Your task to perform on an android device: turn notification dots on Image 0: 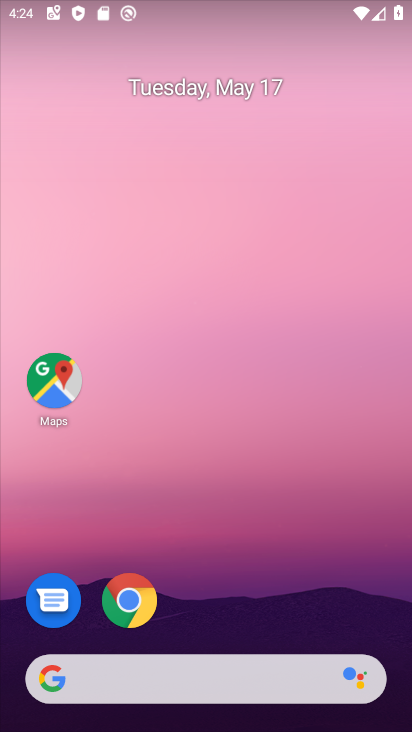
Step 0: drag from (252, 596) to (359, 1)
Your task to perform on an android device: turn notification dots on Image 1: 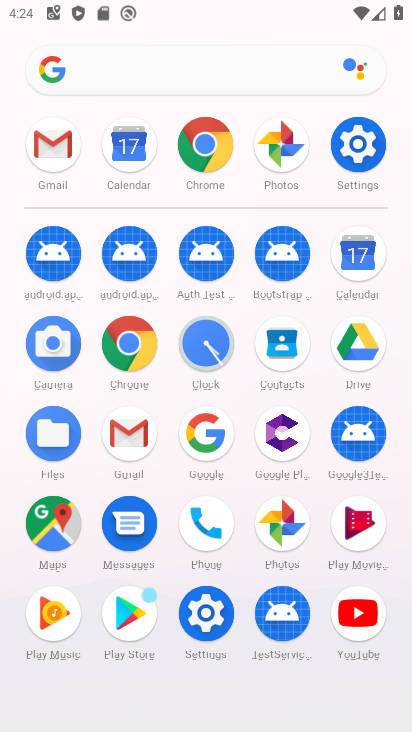
Step 1: click (210, 630)
Your task to perform on an android device: turn notification dots on Image 2: 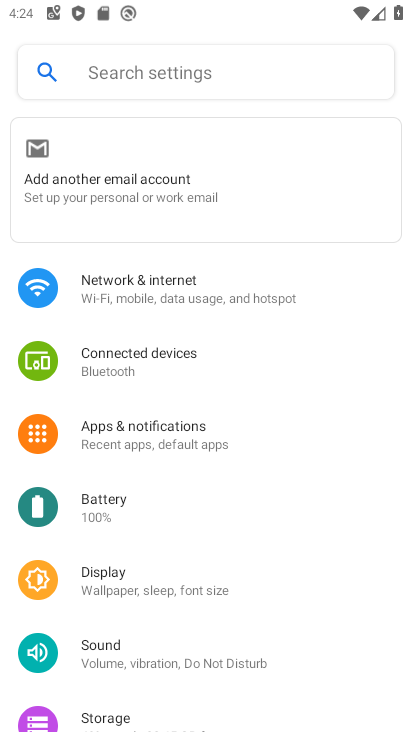
Step 2: click (178, 437)
Your task to perform on an android device: turn notification dots on Image 3: 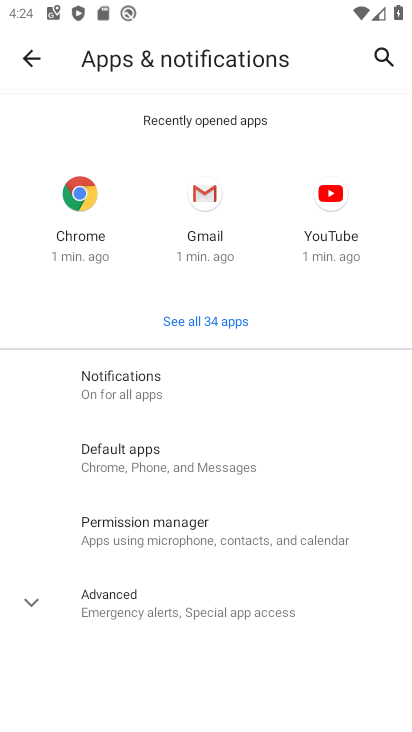
Step 3: click (154, 393)
Your task to perform on an android device: turn notification dots on Image 4: 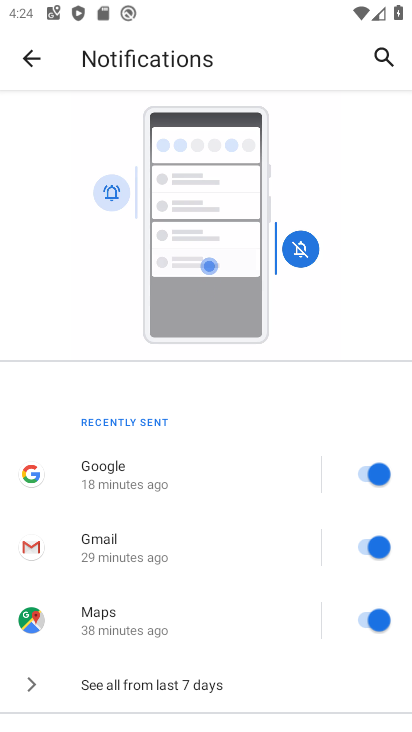
Step 4: drag from (129, 565) to (279, 44)
Your task to perform on an android device: turn notification dots on Image 5: 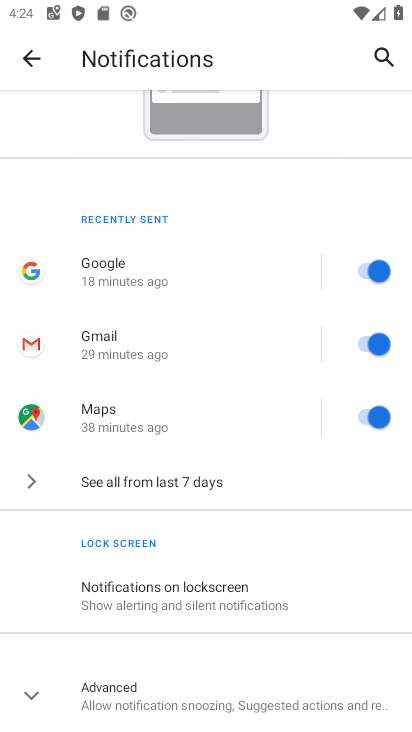
Step 5: click (193, 607)
Your task to perform on an android device: turn notification dots on Image 6: 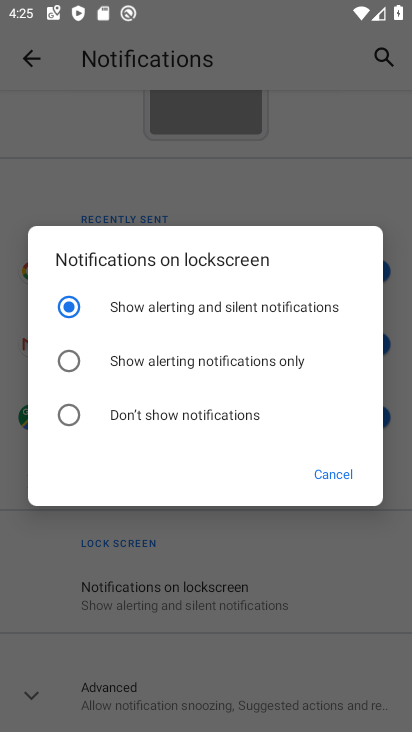
Step 6: click (337, 476)
Your task to perform on an android device: turn notification dots on Image 7: 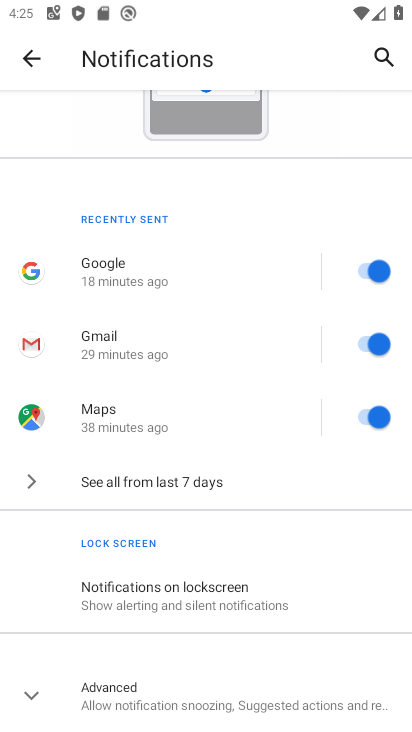
Step 7: drag from (267, 608) to (311, 226)
Your task to perform on an android device: turn notification dots on Image 8: 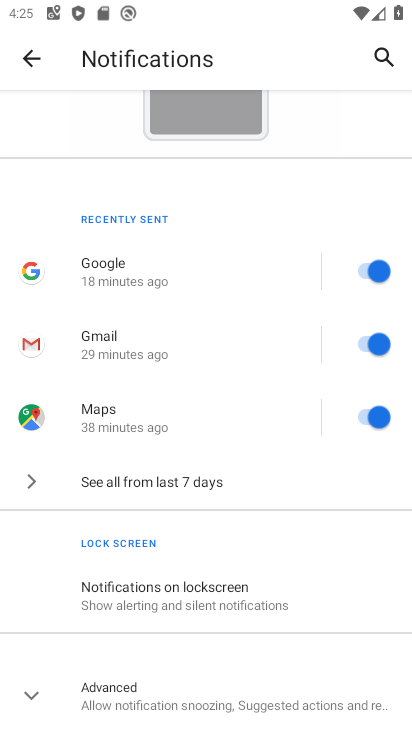
Step 8: click (156, 706)
Your task to perform on an android device: turn notification dots on Image 9: 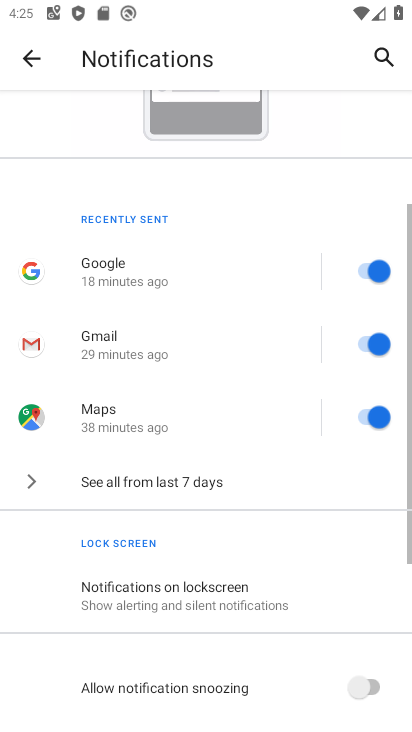
Step 9: task complete